Your task to perform on an android device: empty trash in the gmail app Image 0: 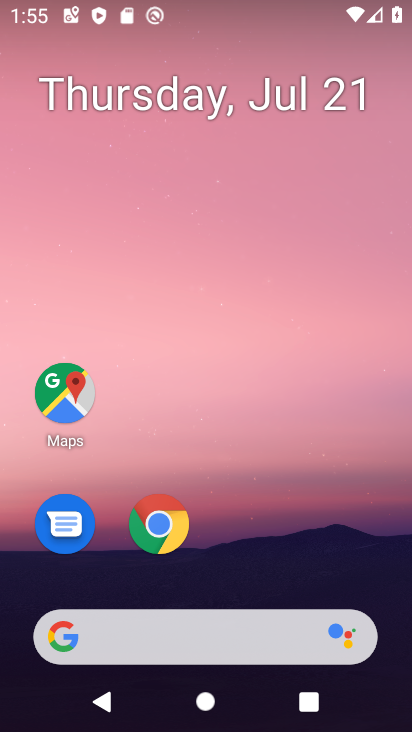
Step 0: drag from (290, 561) to (314, 4)
Your task to perform on an android device: empty trash in the gmail app Image 1: 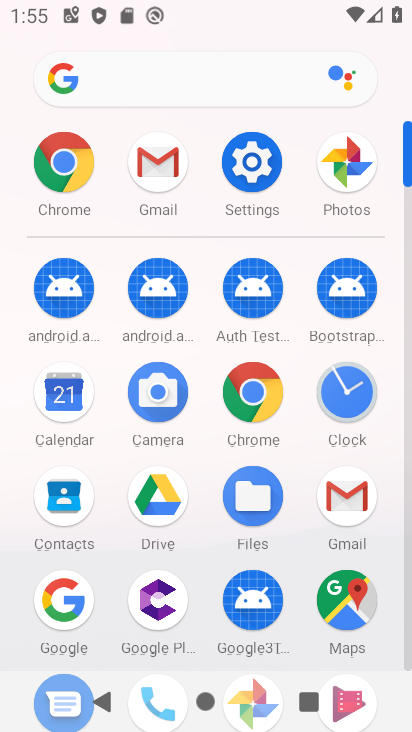
Step 1: click (166, 179)
Your task to perform on an android device: empty trash in the gmail app Image 2: 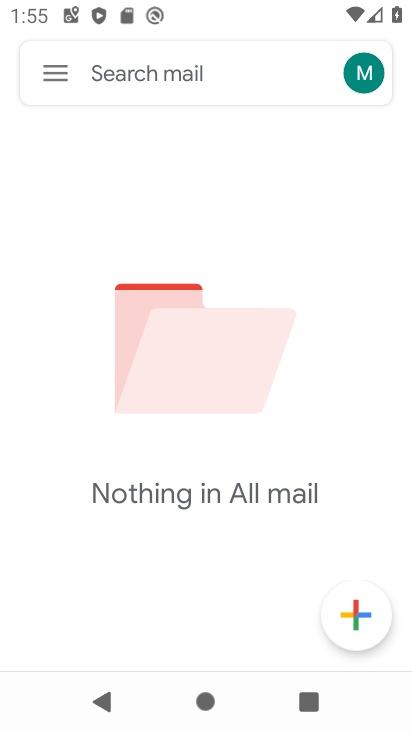
Step 2: click (63, 78)
Your task to perform on an android device: empty trash in the gmail app Image 3: 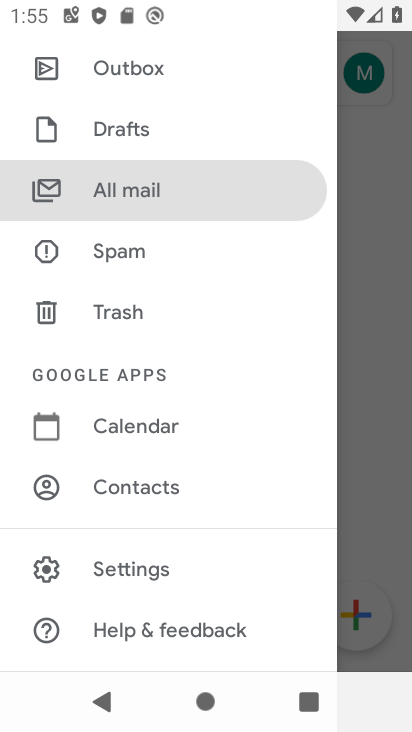
Step 3: click (105, 315)
Your task to perform on an android device: empty trash in the gmail app Image 4: 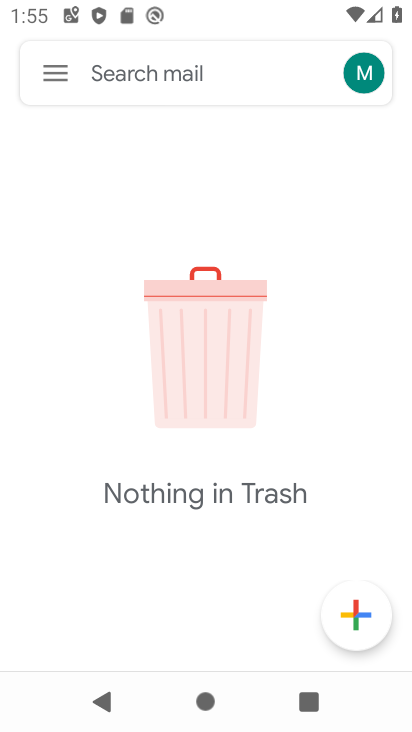
Step 4: task complete